Your task to perform on an android device: Go to CNN.com Image 0: 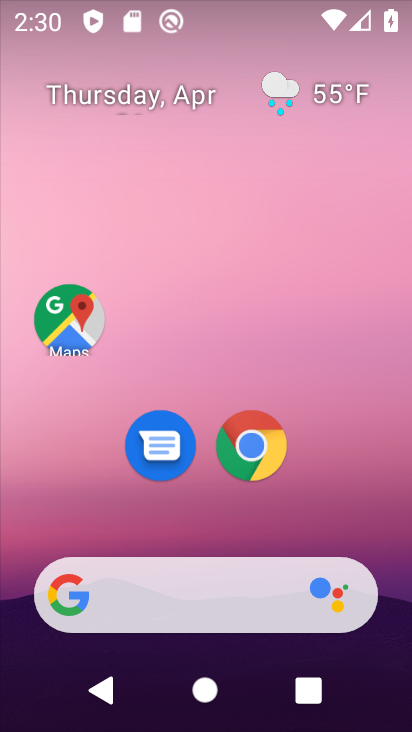
Step 0: click (255, 445)
Your task to perform on an android device: Go to CNN.com Image 1: 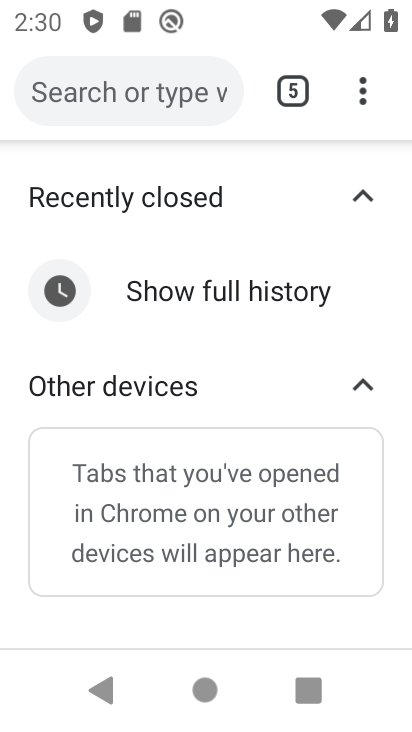
Step 1: click (126, 94)
Your task to perform on an android device: Go to CNN.com Image 2: 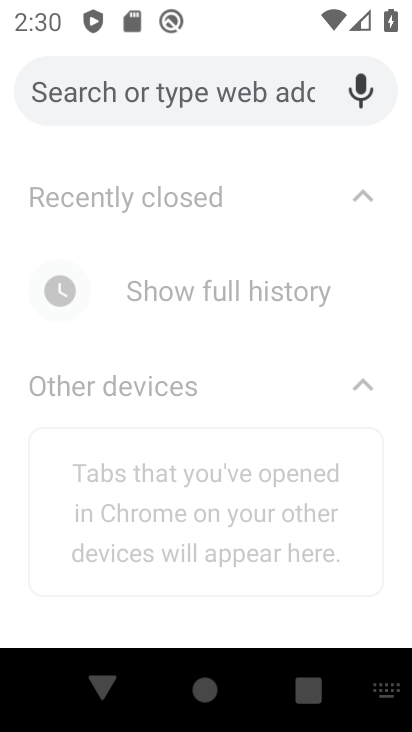
Step 2: type "CNN.com"
Your task to perform on an android device: Go to CNN.com Image 3: 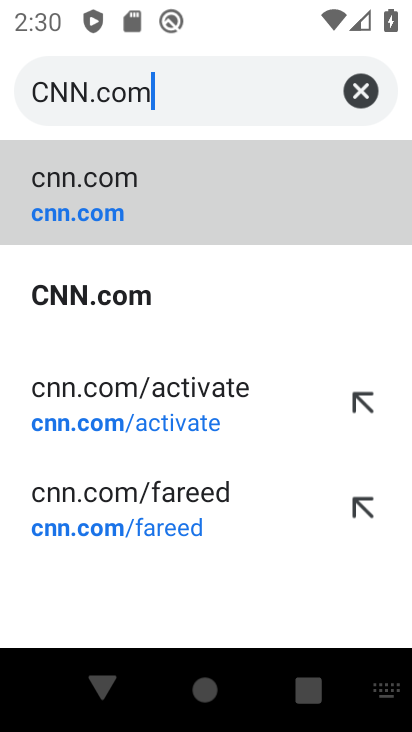
Step 3: click (91, 189)
Your task to perform on an android device: Go to CNN.com Image 4: 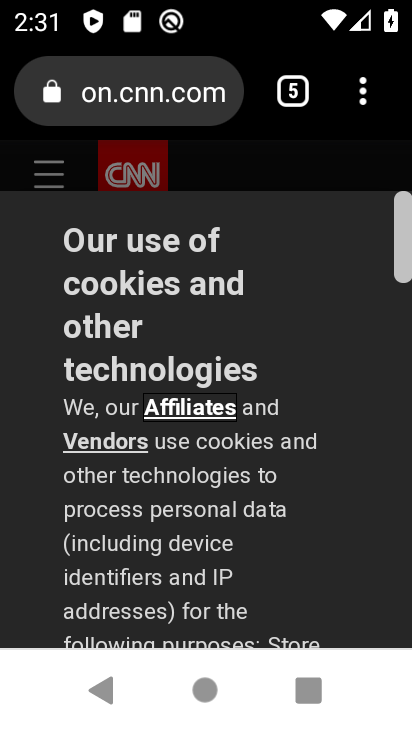
Step 4: task complete